Your task to perform on an android device: Open the map Image 0: 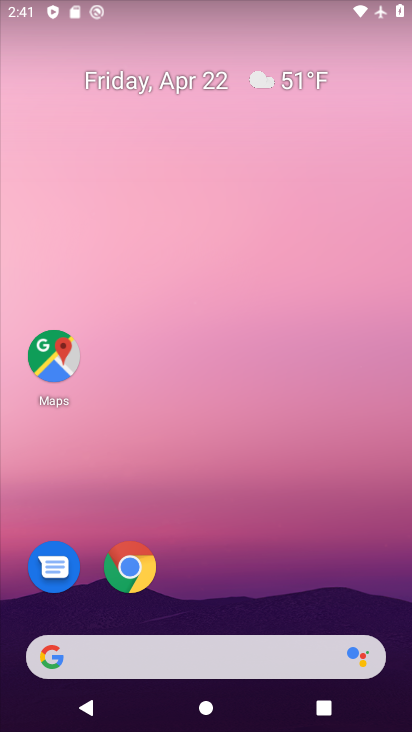
Step 0: drag from (251, 571) to (221, 187)
Your task to perform on an android device: Open the map Image 1: 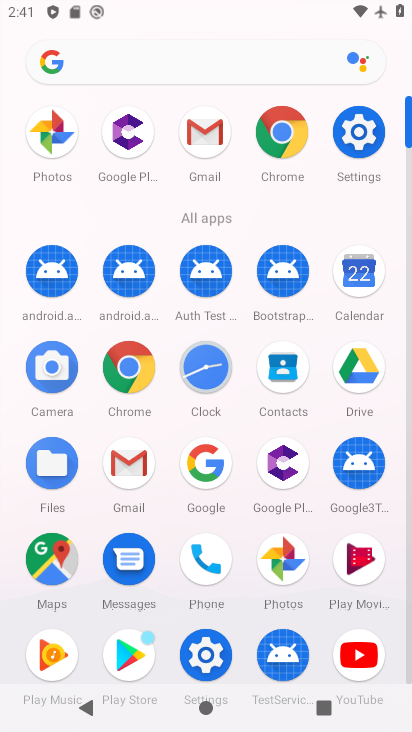
Step 1: click (45, 565)
Your task to perform on an android device: Open the map Image 2: 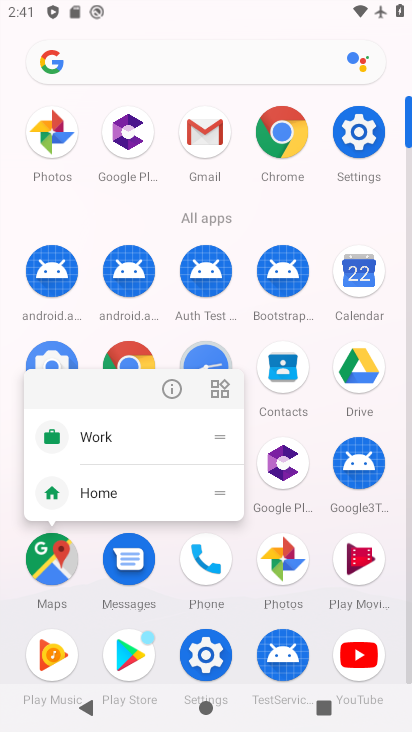
Step 2: click (45, 565)
Your task to perform on an android device: Open the map Image 3: 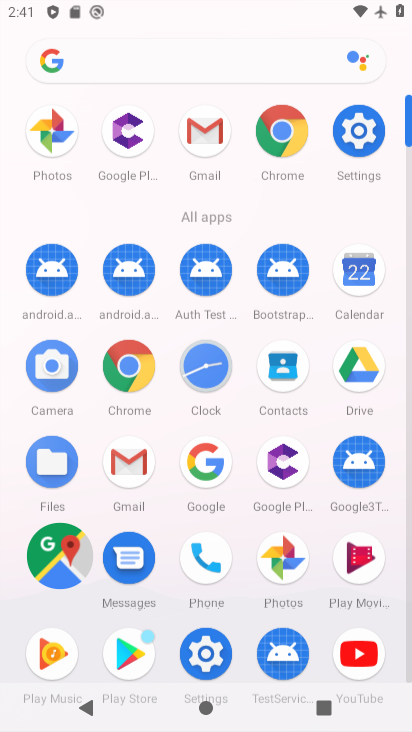
Step 3: click (45, 565)
Your task to perform on an android device: Open the map Image 4: 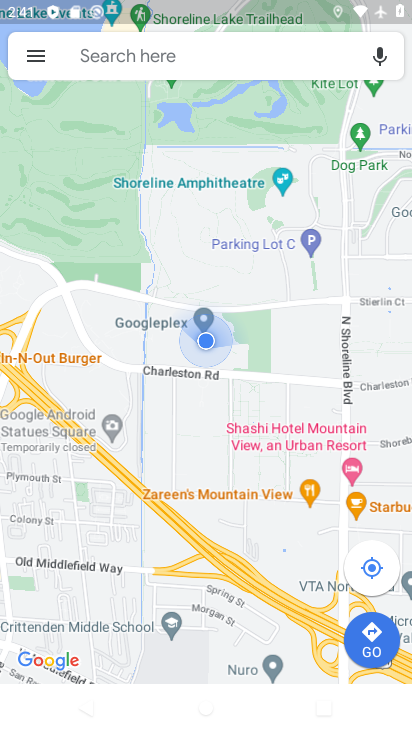
Step 4: task complete